Your task to perform on an android device: Open display settings Image 0: 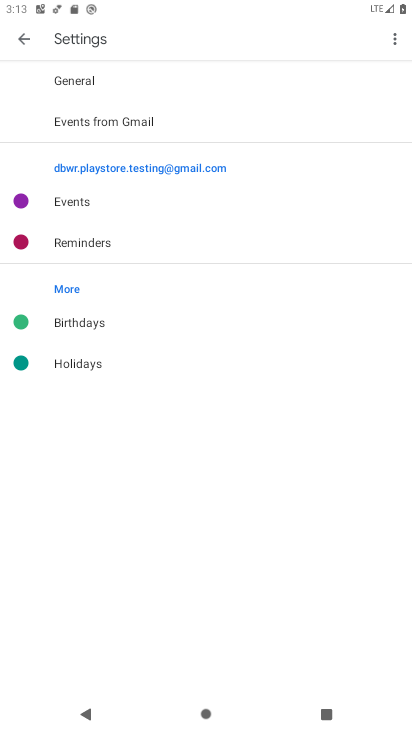
Step 0: press home button
Your task to perform on an android device: Open display settings Image 1: 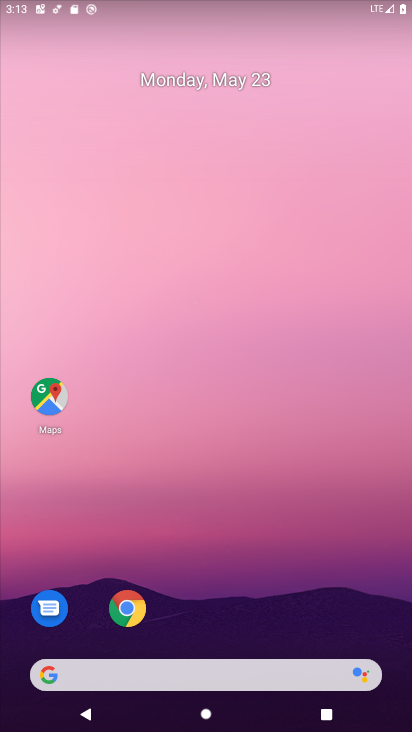
Step 1: drag from (233, 635) to (175, 240)
Your task to perform on an android device: Open display settings Image 2: 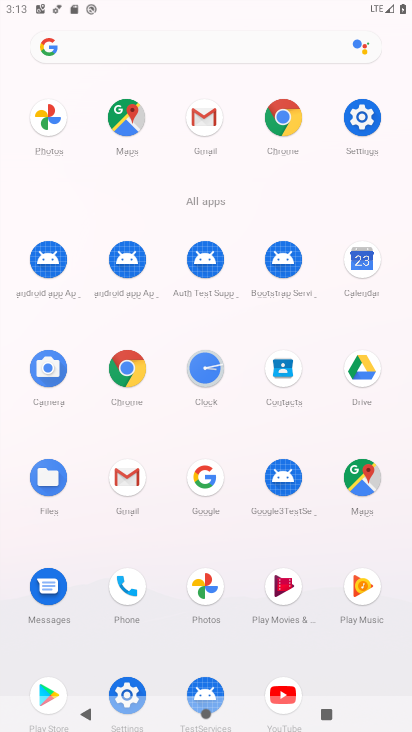
Step 2: click (369, 117)
Your task to perform on an android device: Open display settings Image 3: 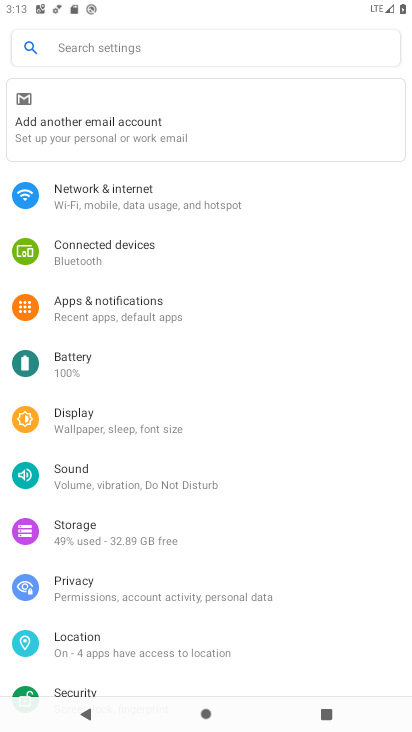
Step 3: click (214, 419)
Your task to perform on an android device: Open display settings Image 4: 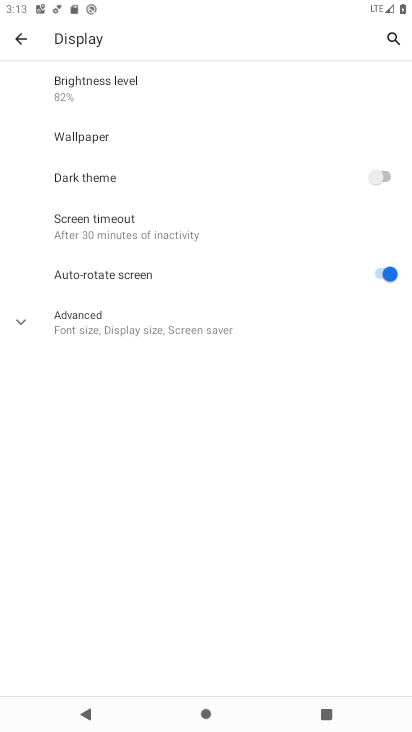
Step 4: click (153, 333)
Your task to perform on an android device: Open display settings Image 5: 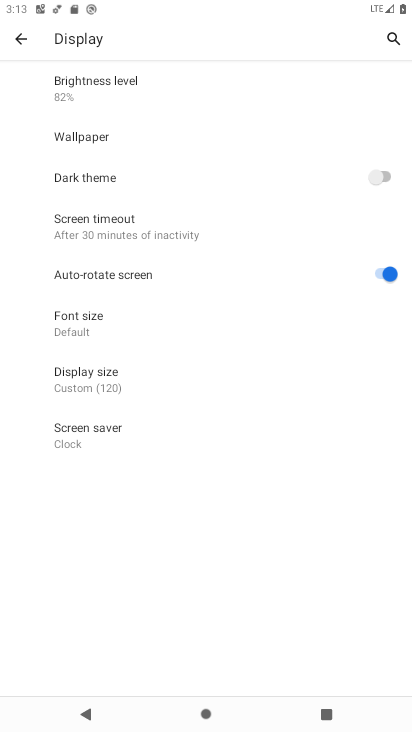
Step 5: task complete